Your task to perform on an android device: toggle location history Image 0: 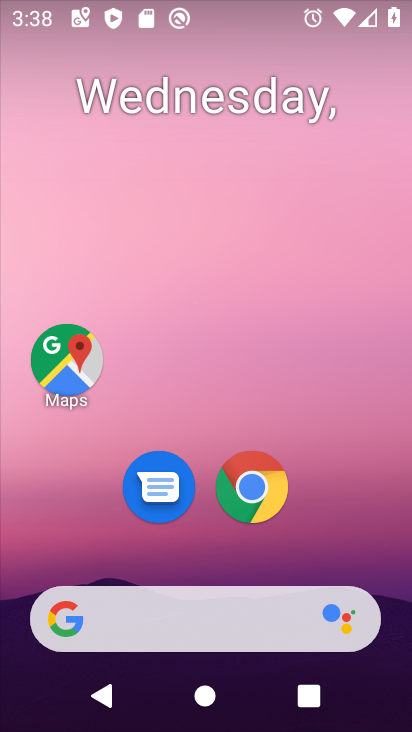
Step 0: drag from (374, 532) to (379, 273)
Your task to perform on an android device: toggle location history Image 1: 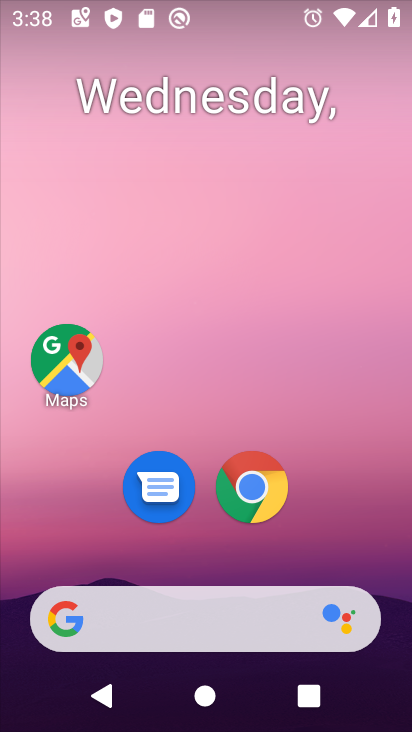
Step 1: drag from (371, 541) to (384, 243)
Your task to perform on an android device: toggle location history Image 2: 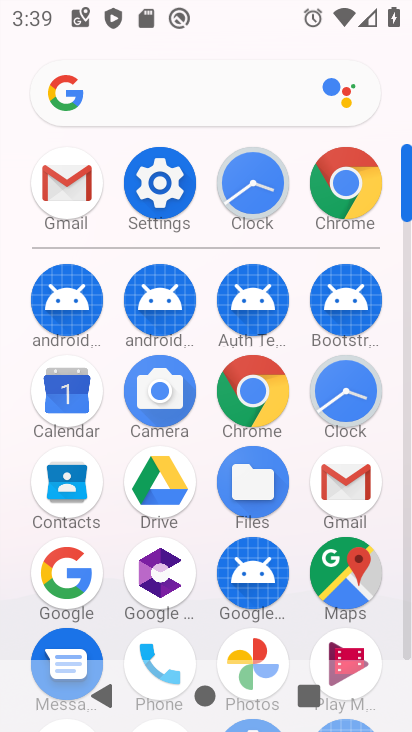
Step 2: click (170, 209)
Your task to perform on an android device: toggle location history Image 3: 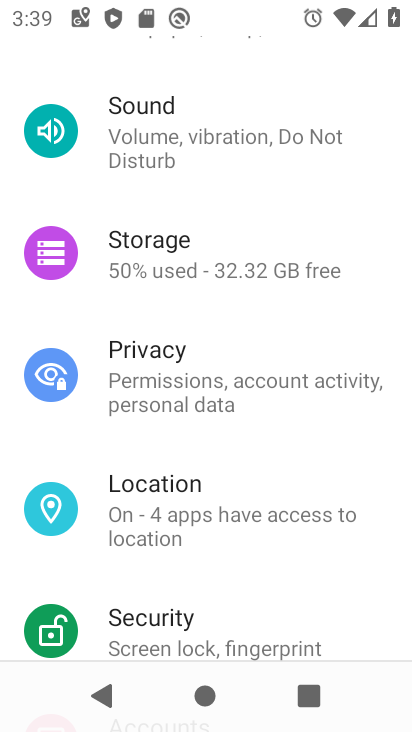
Step 3: drag from (345, 430) to (352, 335)
Your task to perform on an android device: toggle location history Image 4: 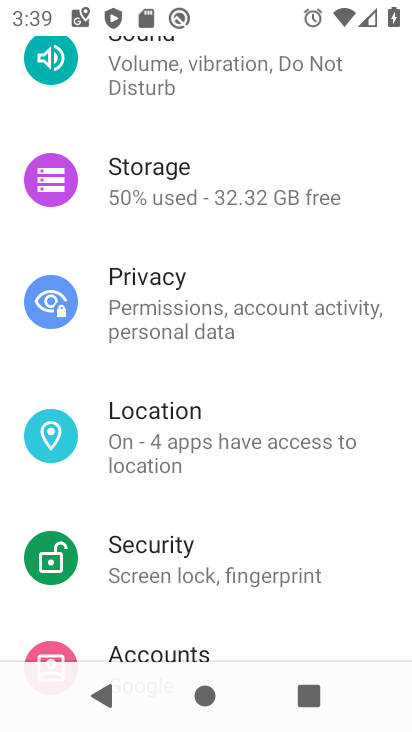
Step 4: drag from (363, 497) to (360, 332)
Your task to perform on an android device: toggle location history Image 5: 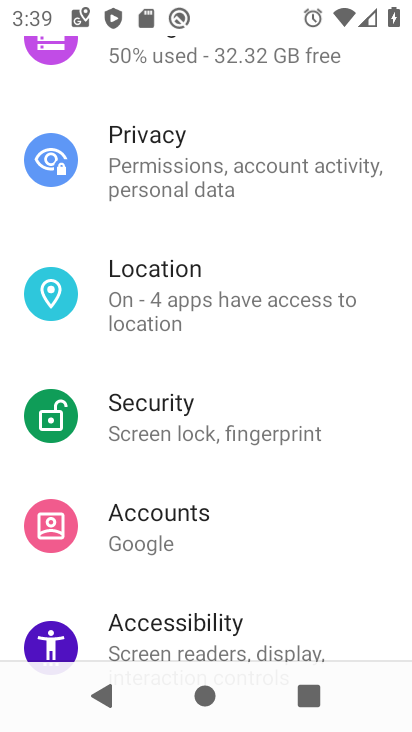
Step 5: drag from (362, 517) to (357, 425)
Your task to perform on an android device: toggle location history Image 6: 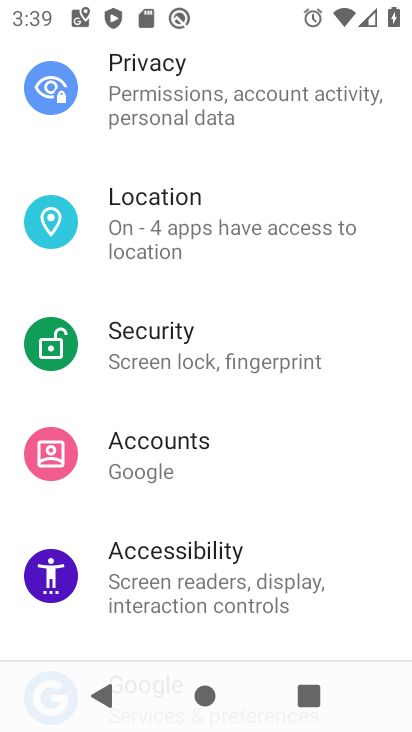
Step 6: click (267, 232)
Your task to perform on an android device: toggle location history Image 7: 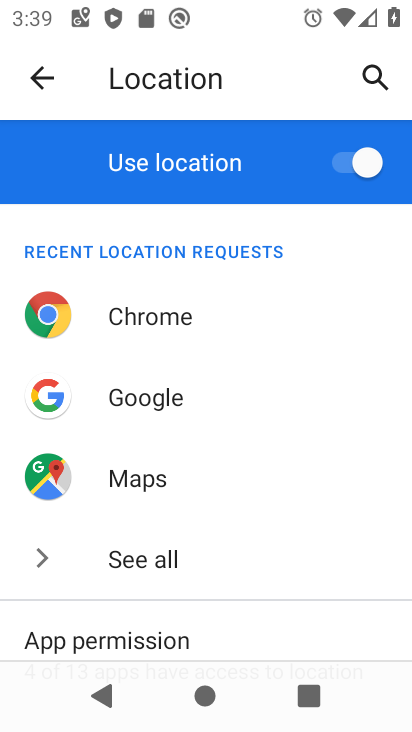
Step 7: drag from (284, 524) to (287, 457)
Your task to perform on an android device: toggle location history Image 8: 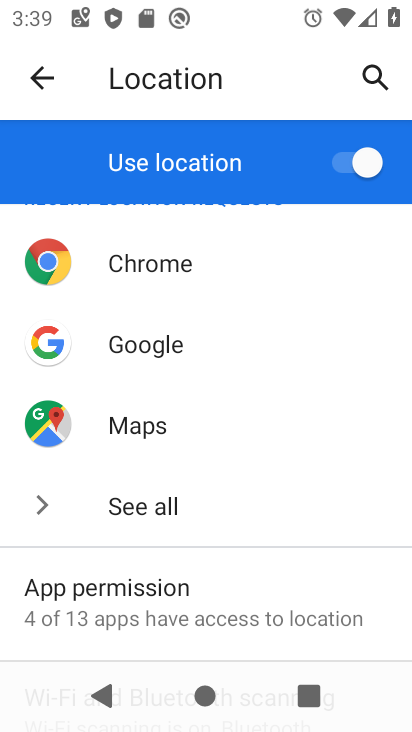
Step 8: drag from (288, 562) to (294, 459)
Your task to perform on an android device: toggle location history Image 9: 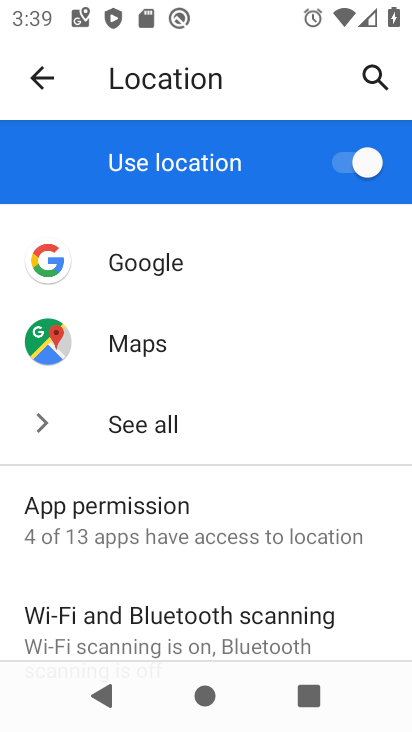
Step 9: drag from (289, 574) to (305, 476)
Your task to perform on an android device: toggle location history Image 10: 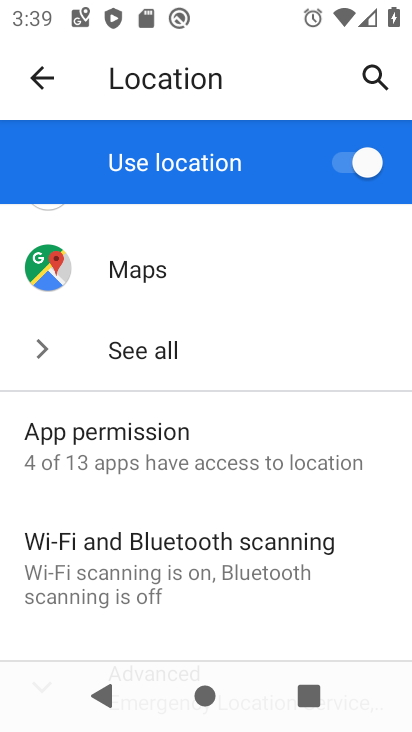
Step 10: drag from (322, 578) to (319, 481)
Your task to perform on an android device: toggle location history Image 11: 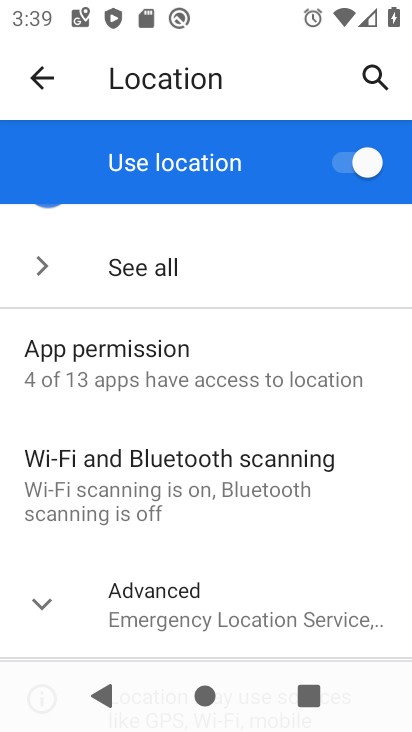
Step 11: drag from (317, 556) to (313, 468)
Your task to perform on an android device: toggle location history Image 12: 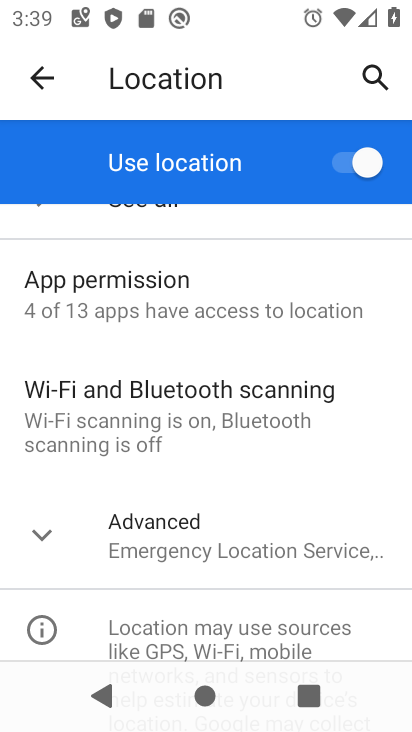
Step 12: drag from (330, 580) to (336, 451)
Your task to perform on an android device: toggle location history Image 13: 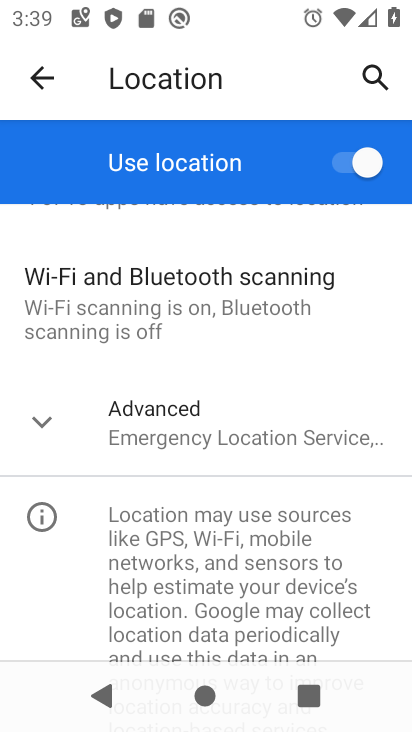
Step 13: click (303, 442)
Your task to perform on an android device: toggle location history Image 14: 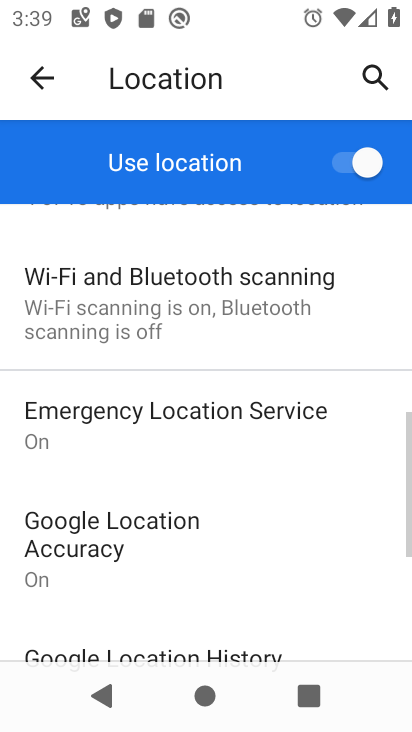
Step 14: drag from (303, 561) to (312, 450)
Your task to perform on an android device: toggle location history Image 15: 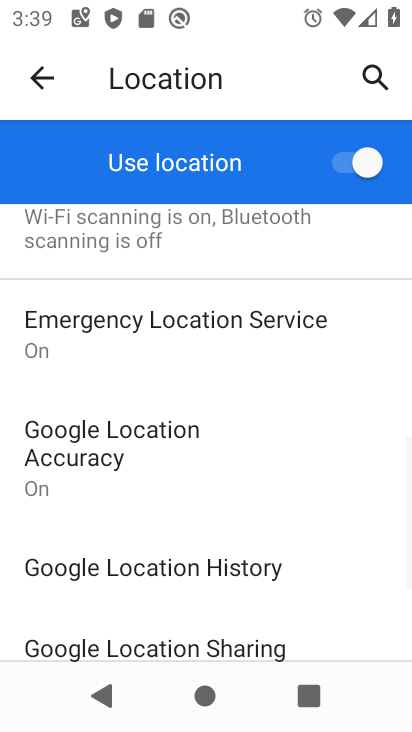
Step 15: drag from (339, 550) to (334, 467)
Your task to perform on an android device: toggle location history Image 16: 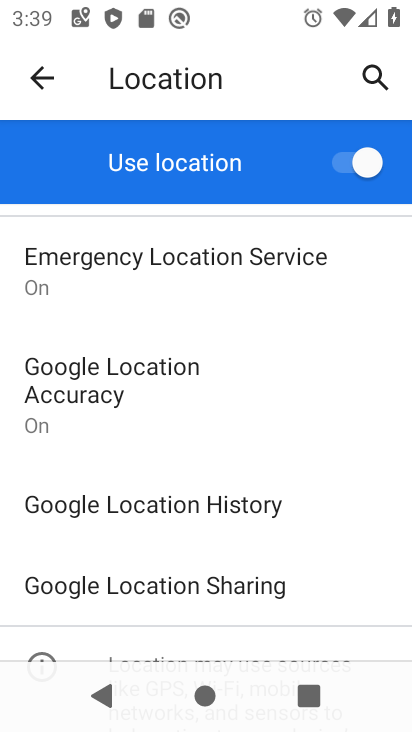
Step 16: drag from (350, 553) to (374, 439)
Your task to perform on an android device: toggle location history Image 17: 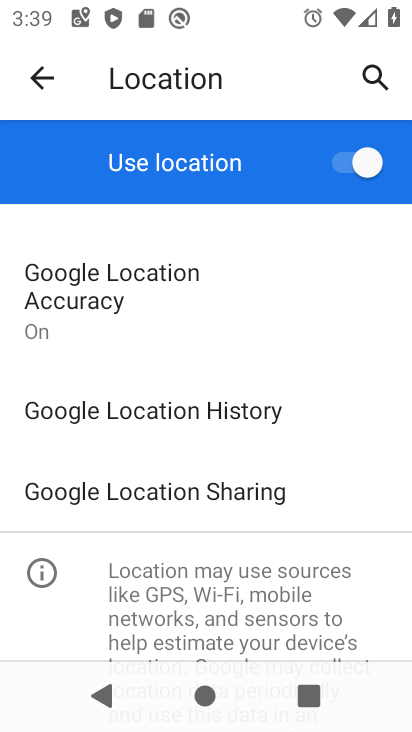
Step 17: click (234, 405)
Your task to perform on an android device: toggle location history Image 18: 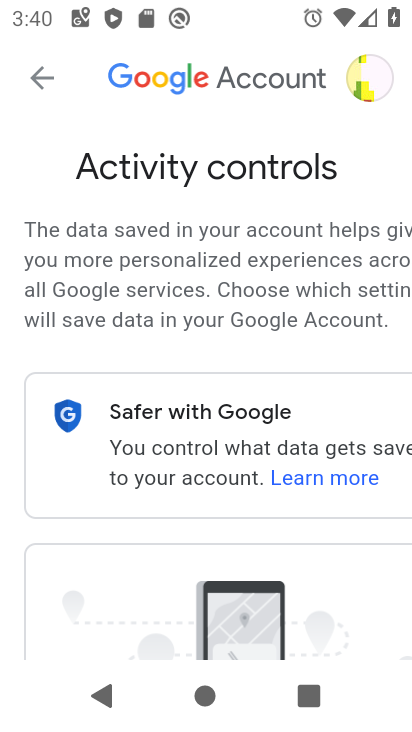
Step 18: drag from (312, 566) to (325, 385)
Your task to perform on an android device: toggle location history Image 19: 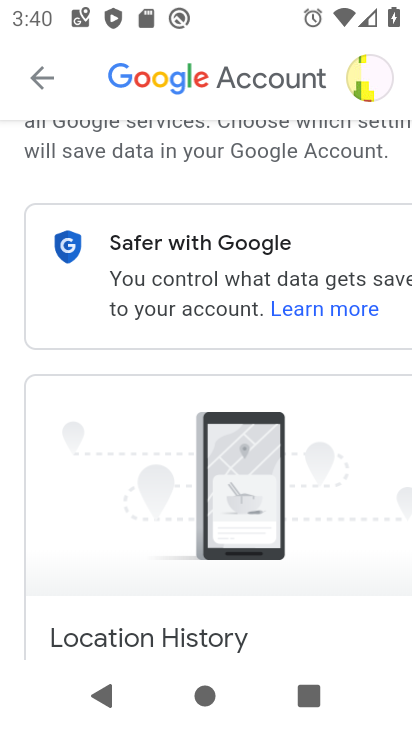
Step 19: drag from (340, 531) to (343, 334)
Your task to perform on an android device: toggle location history Image 20: 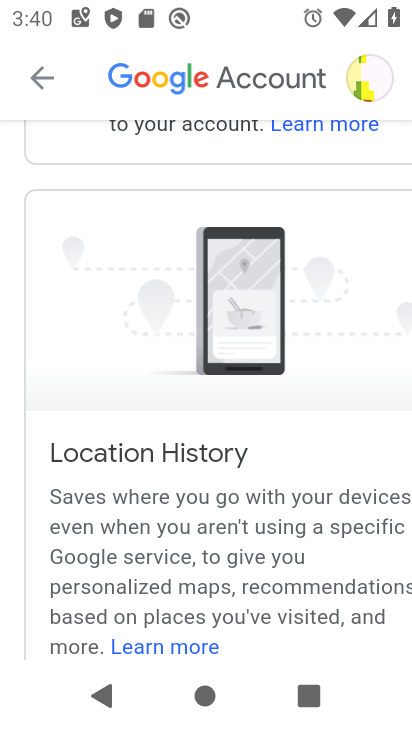
Step 20: drag from (322, 533) to (326, 393)
Your task to perform on an android device: toggle location history Image 21: 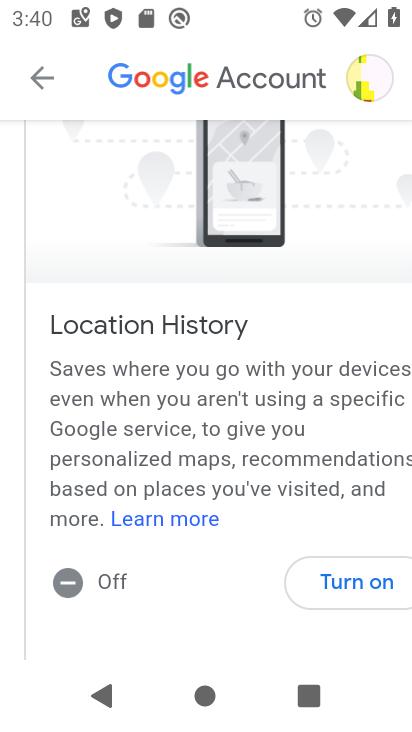
Step 21: click (345, 578)
Your task to perform on an android device: toggle location history Image 22: 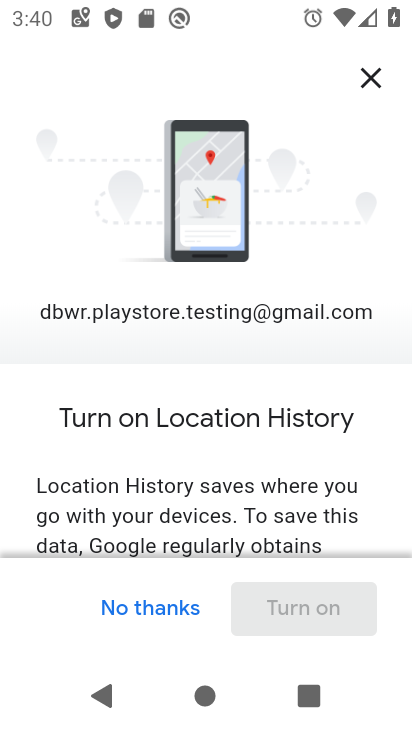
Step 22: drag from (344, 514) to (344, 401)
Your task to perform on an android device: toggle location history Image 23: 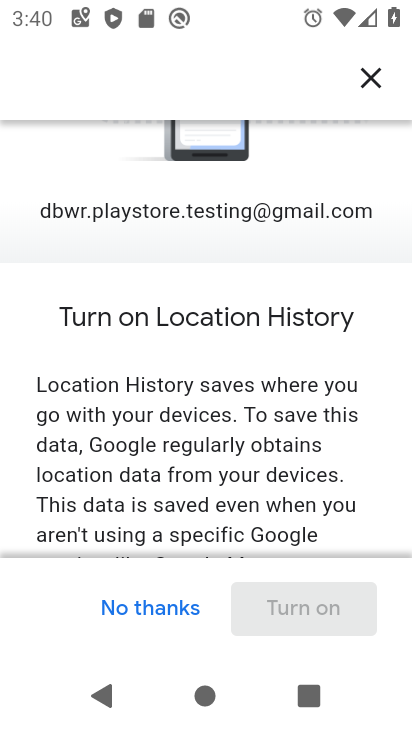
Step 23: drag from (378, 514) to (395, 373)
Your task to perform on an android device: toggle location history Image 24: 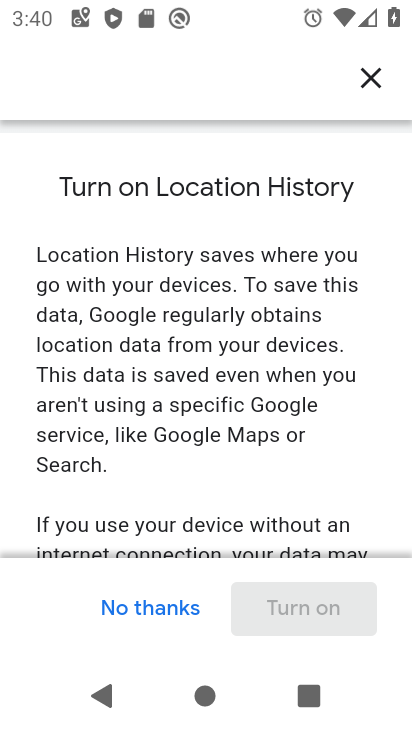
Step 24: drag from (351, 489) to (346, 367)
Your task to perform on an android device: toggle location history Image 25: 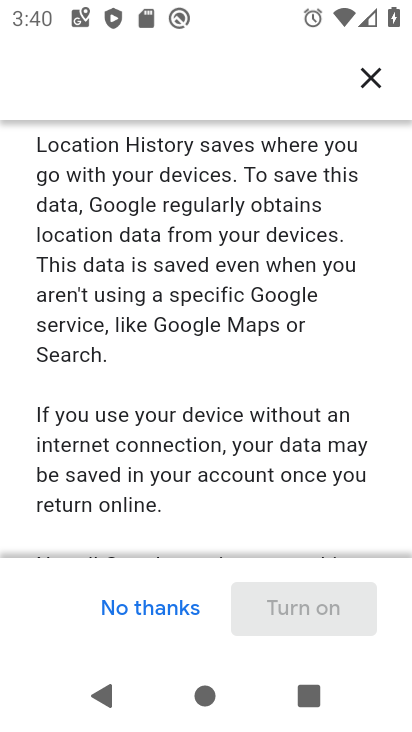
Step 25: drag from (323, 513) to (327, 391)
Your task to perform on an android device: toggle location history Image 26: 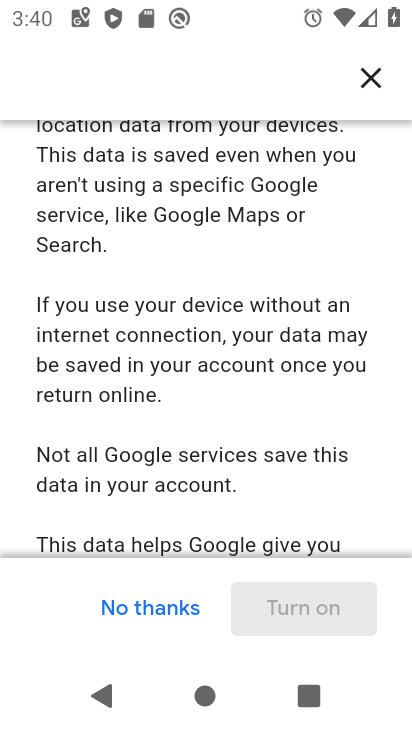
Step 26: drag from (330, 511) to (322, 390)
Your task to perform on an android device: toggle location history Image 27: 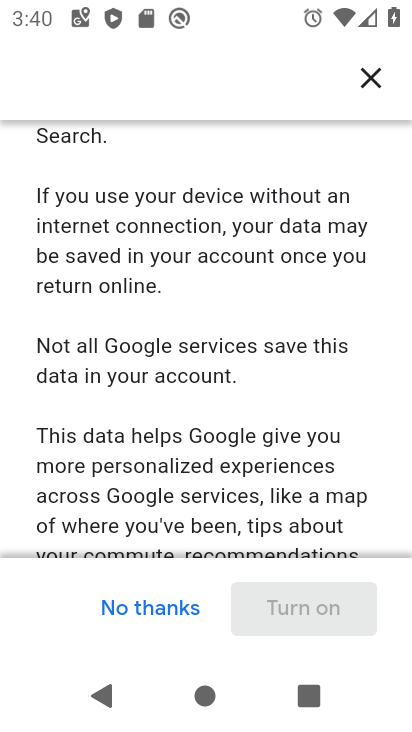
Step 27: drag from (323, 500) to (313, 387)
Your task to perform on an android device: toggle location history Image 28: 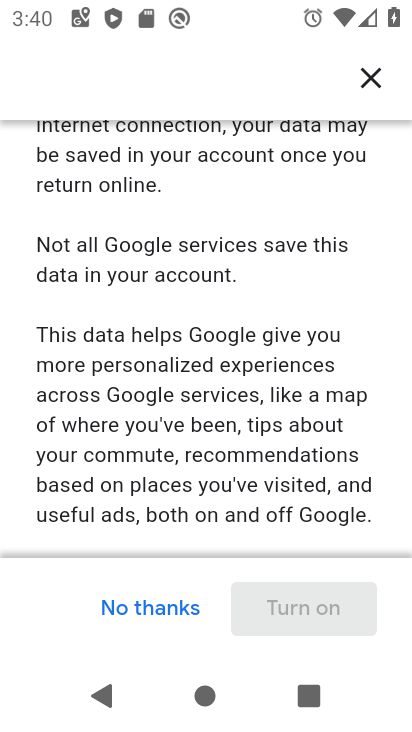
Step 28: drag from (309, 507) to (316, 378)
Your task to perform on an android device: toggle location history Image 29: 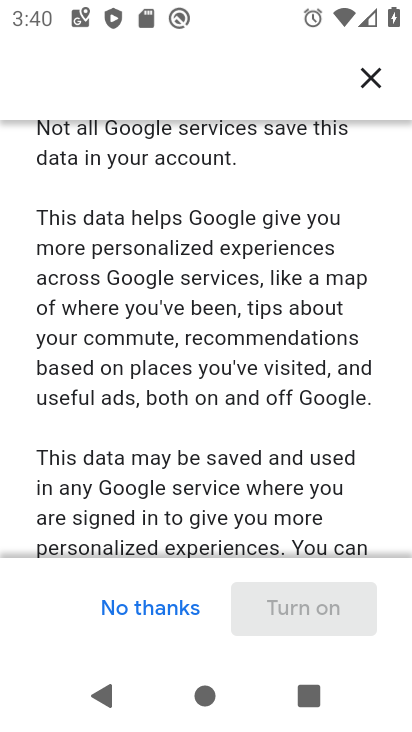
Step 29: drag from (284, 502) to (296, 390)
Your task to perform on an android device: toggle location history Image 30: 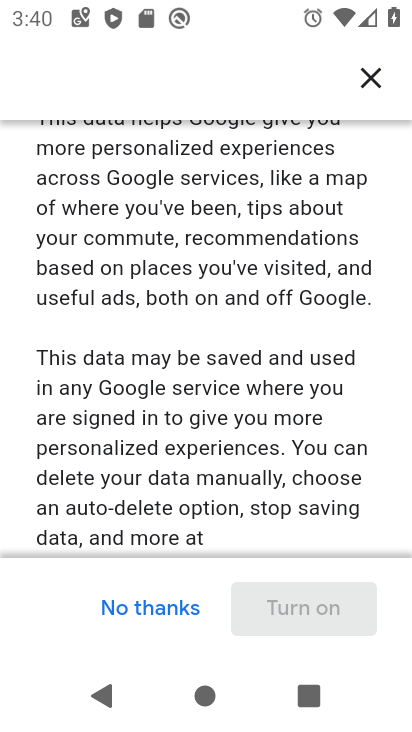
Step 30: drag from (270, 507) to (271, 410)
Your task to perform on an android device: toggle location history Image 31: 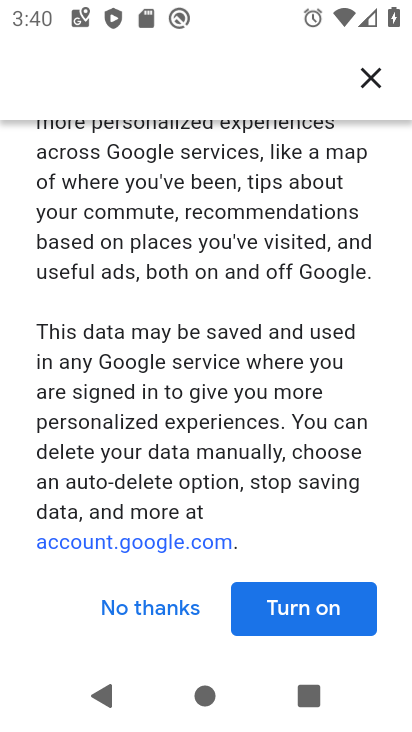
Step 31: click (295, 611)
Your task to perform on an android device: toggle location history Image 32: 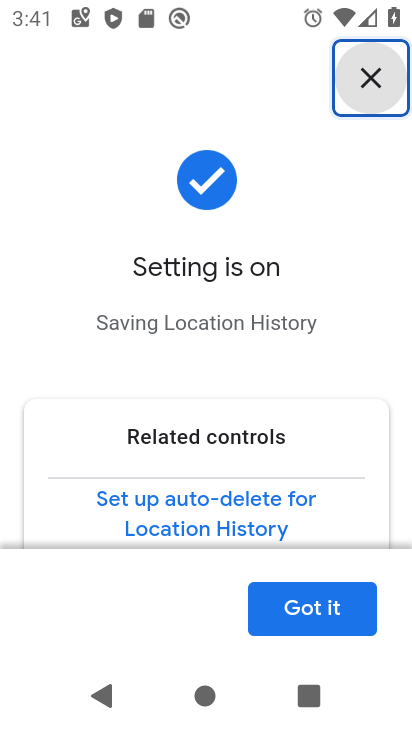
Step 32: task complete